Your task to perform on an android device: Open Yahoo.com Image 0: 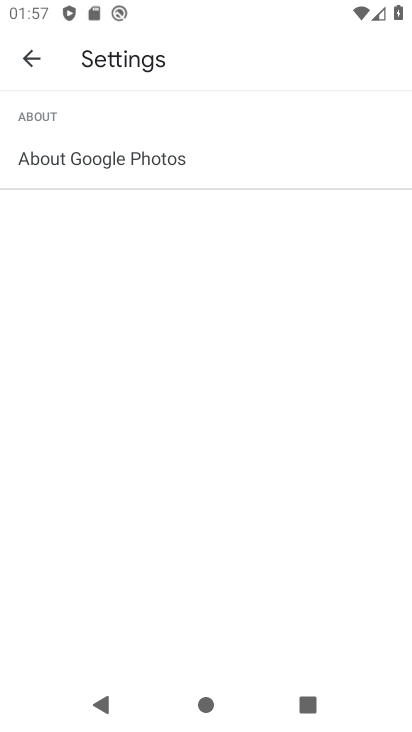
Step 0: press back button
Your task to perform on an android device: Open Yahoo.com Image 1: 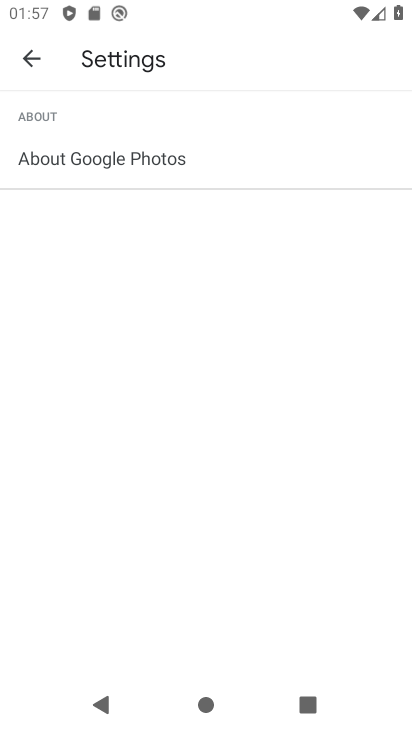
Step 1: press back button
Your task to perform on an android device: Open Yahoo.com Image 2: 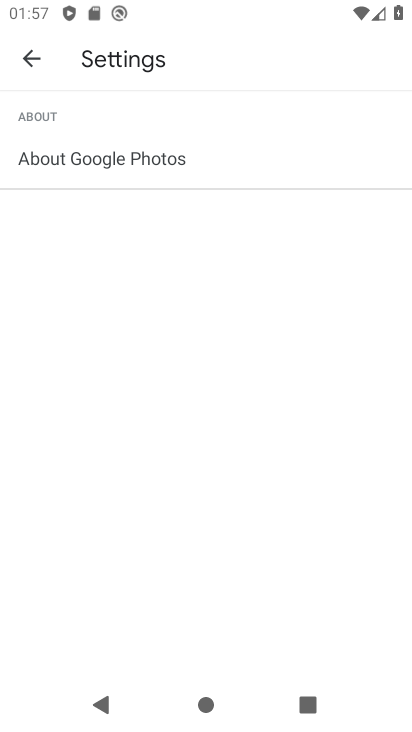
Step 2: press back button
Your task to perform on an android device: Open Yahoo.com Image 3: 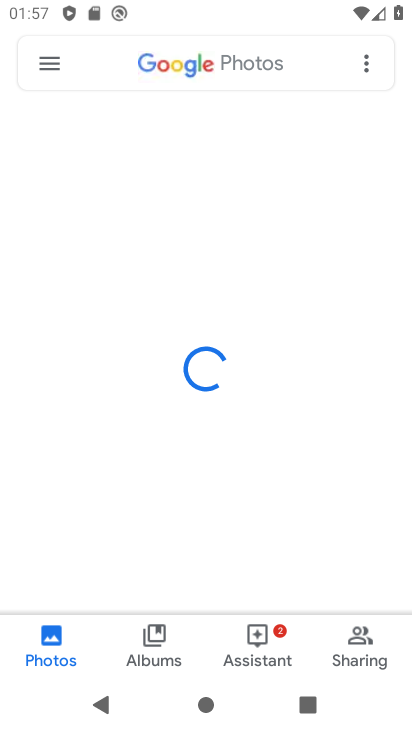
Step 3: press home button
Your task to perform on an android device: Open Yahoo.com Image 4: 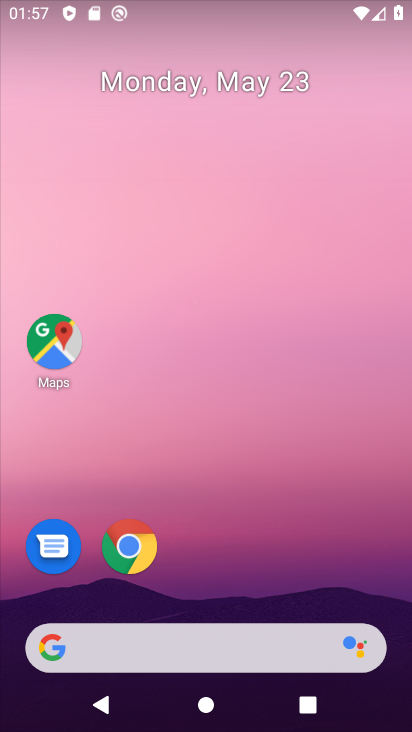
Step 4: click (137, 551)
Your task to perform on an android device: Open Yahoo.com Image 5: 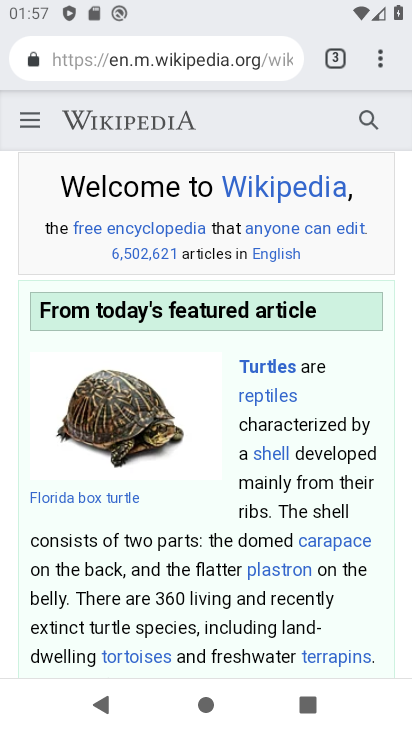
Step 5: click (330, 55)
Your task to perform on an android device: Open Yahoo.com Image 6: 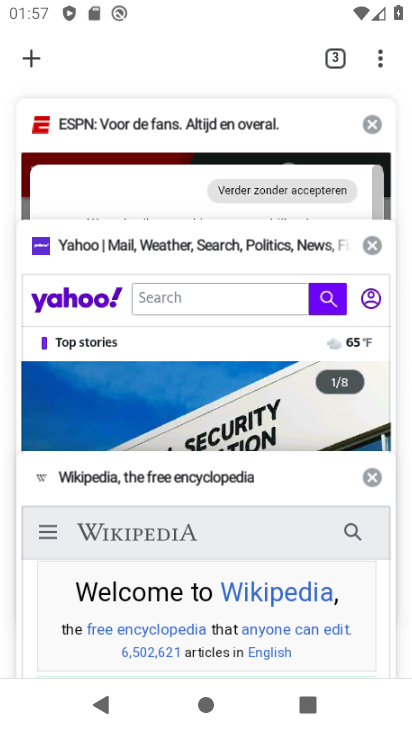
Step 6: click (88, 318)
Your task to perform on an android device: Open Yahoo.com Image 7: 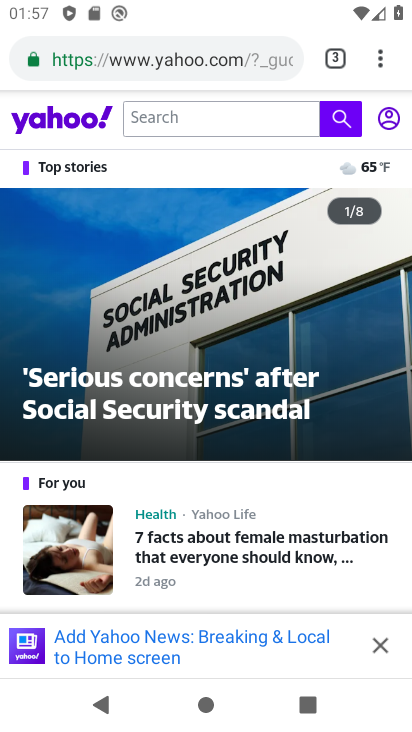
Step 7: task complete